Your task to perform on an android device: turn off location Image 0: 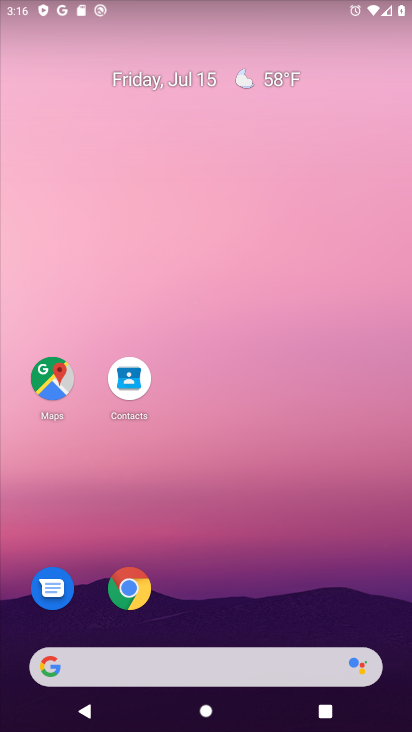
Step 0: drag from (228, 619) to (241, 168)
Your task to perform on an android device: turn off location Image 1: 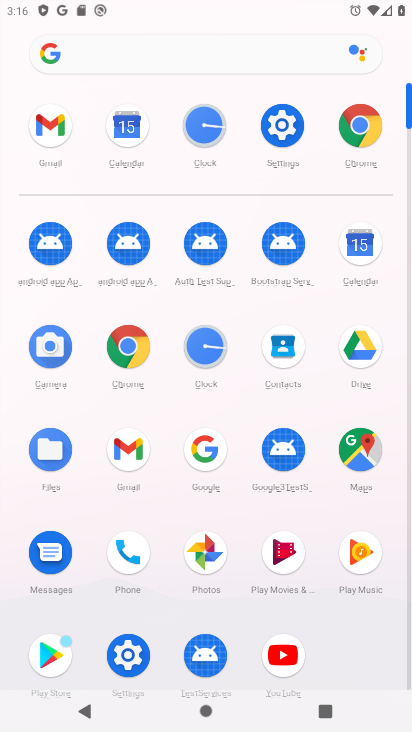
Step 1: click (275, 116)
Your task to perform on an android device: turn off location Image 2: 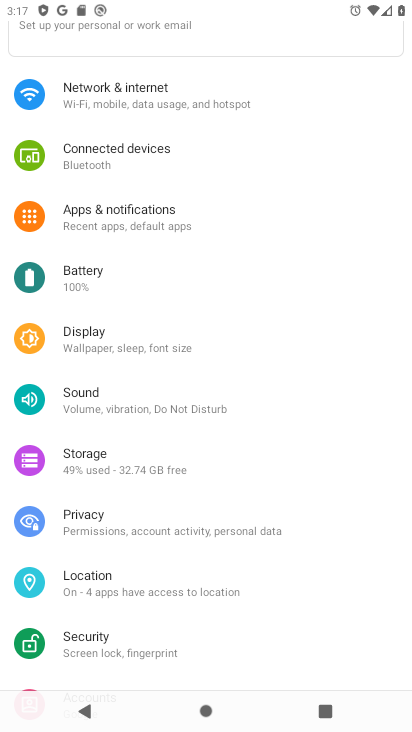
Step 2: click (157, 590)
Your task to perform on an android device: turn off location Image 3: 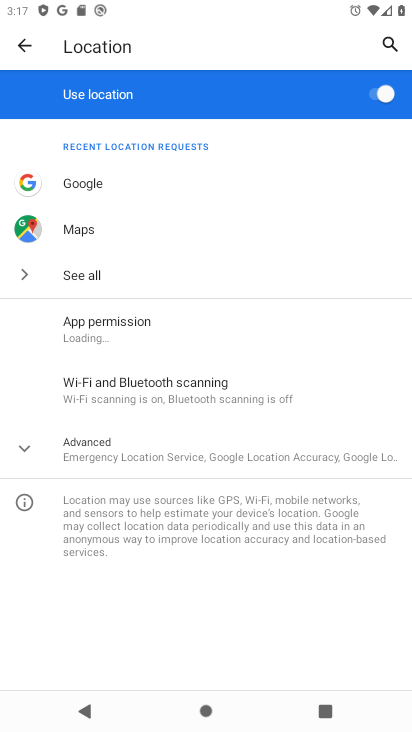
Step 3: click (371, 75)
Your task to perform on an android device: turn off location Image 4: 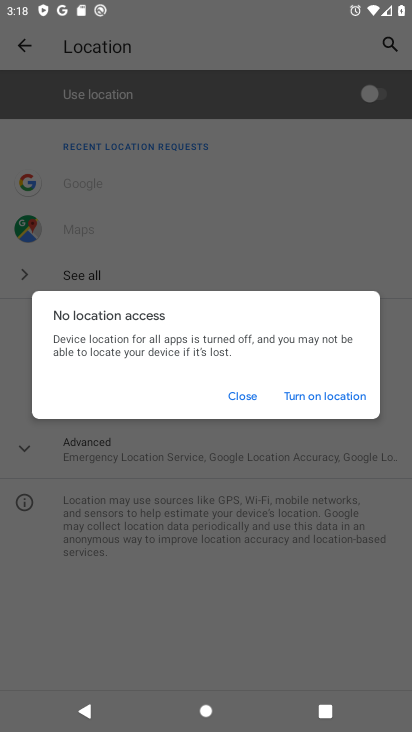
Step 4: click (321, 370)
Your task to perform on an android device: turn off location Image 5: 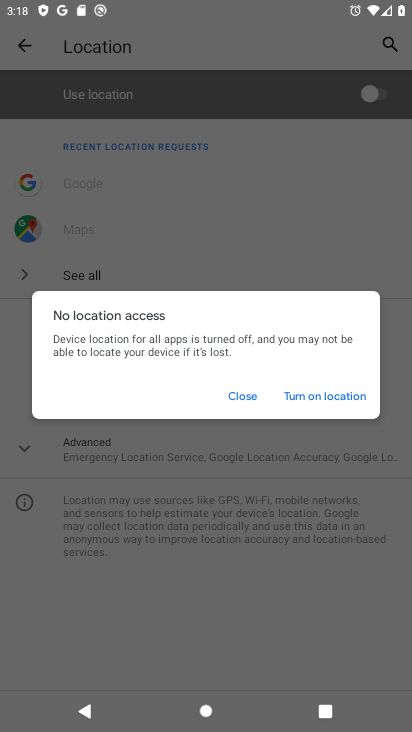
Step 5: task complete